Your task to perform on an android device: change notifications settings Image 0: 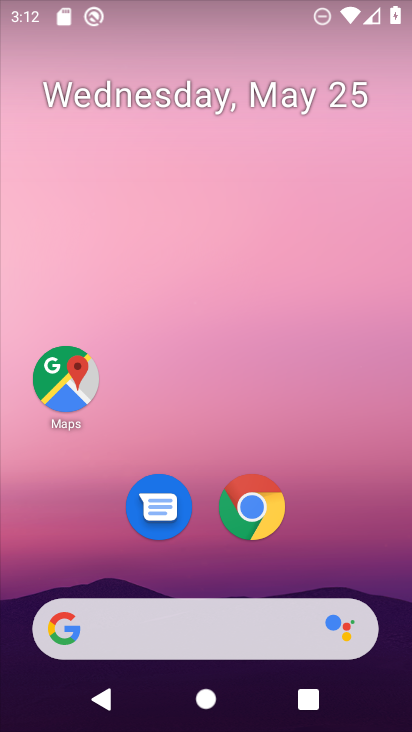
Step 0: drag from (210, 613) to (236, 186)
Your task to perform on an android device: change notifications settings Image 1: 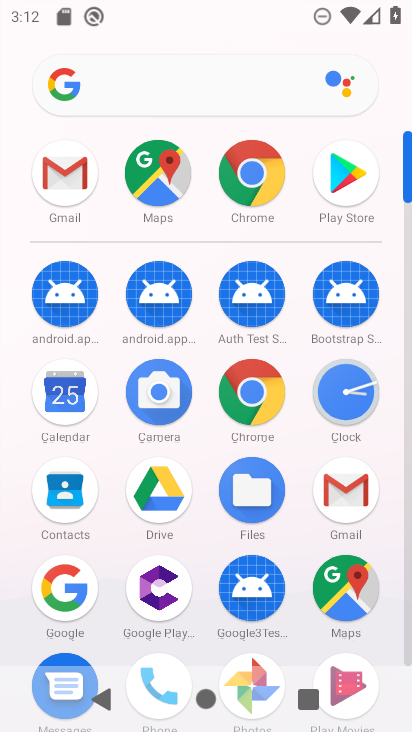
Step 1: drag from (244, 544) to (284, 194)
Your task to perform on an android device: change notifications settings Image 2: 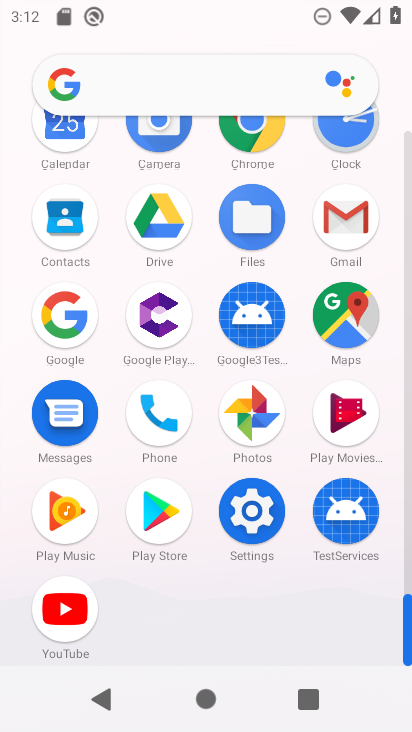
Step 2: click (252, 532)
Your task to perform on an android device: change notifications settings Image 3: 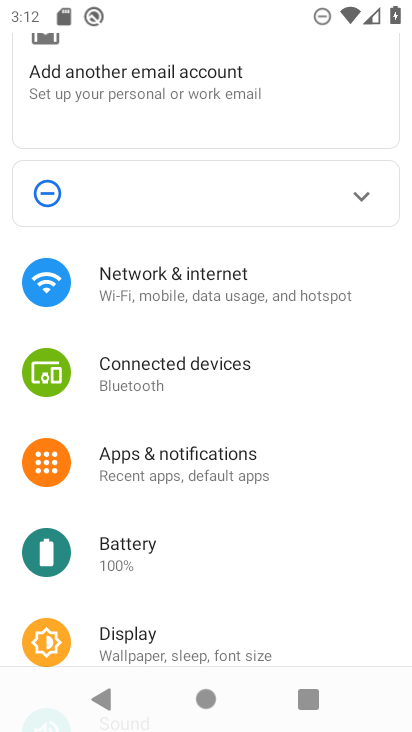
Step 3: click (243, 459)
Your task to perform on an android device: change notifications settings Image 4: 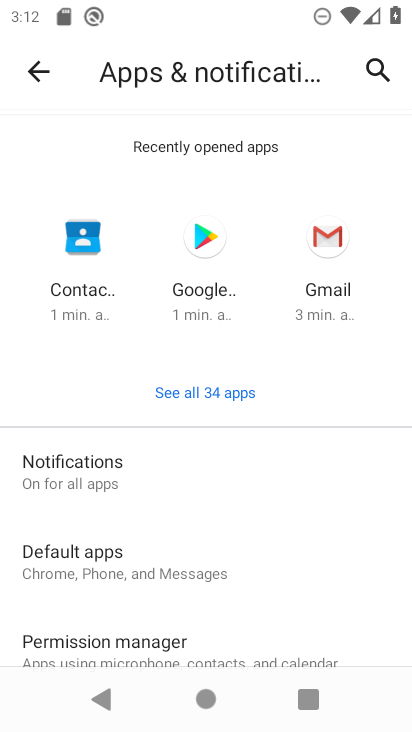
Step 4: click (184, 479)
Your task to perform on an android device: change notifications settings Image 5: 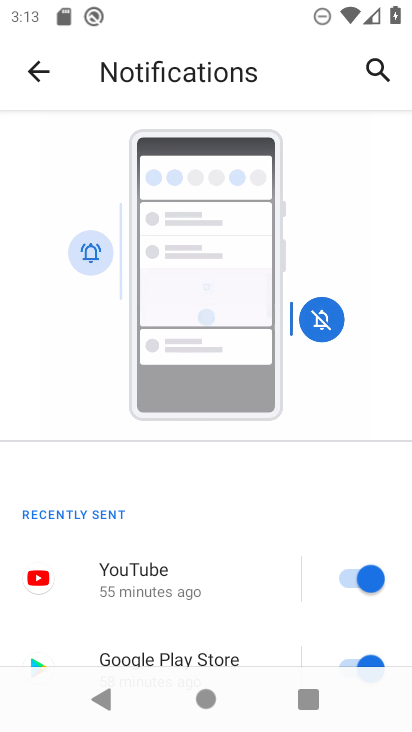
Step 5: click (340, 583)
Your task to perform on an android device: change notifications settings Image 6: 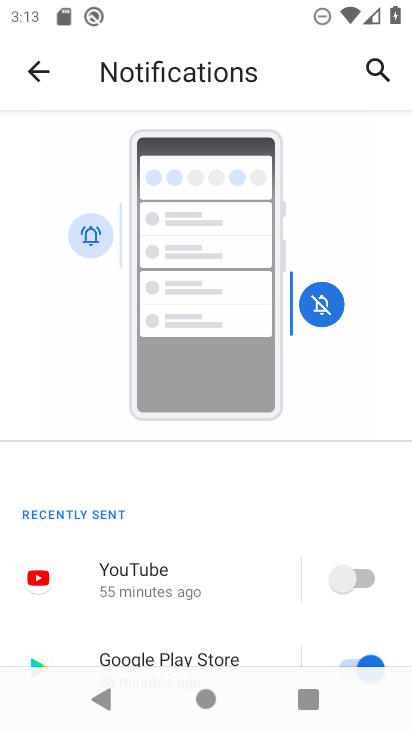
Step 6: task complete